Your task to perform on an android device: Open the stopwatch Image 0: 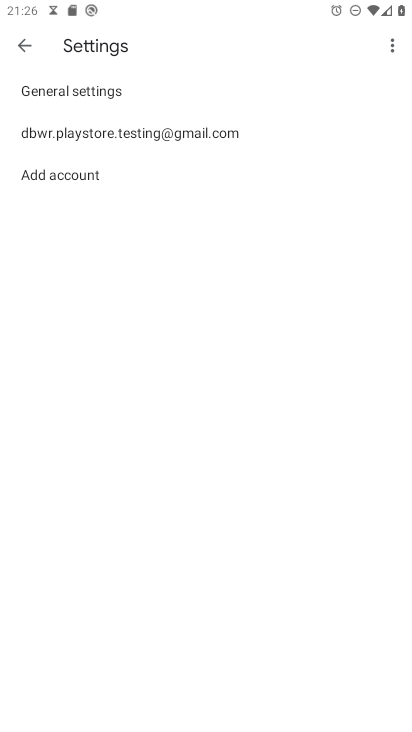
Step 0: press home button
Your task to perform on an android device: Open the stopwatch Image 1: 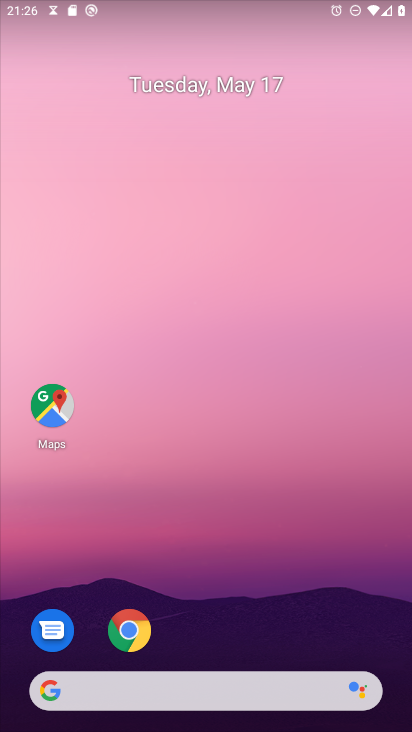
Step 1: drag from (192, 556) to (170, 90)
Your task to perform on an android device: Open the stopwatch Image 2: 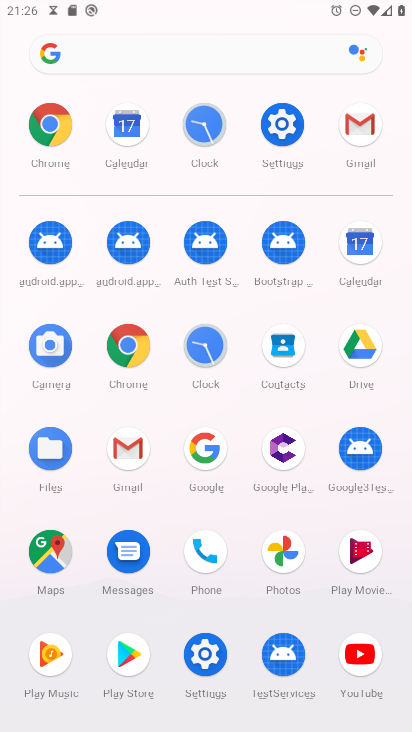
Step 2: click (214, 341)
Your task to perform on an android device: Open the stopwatch Image 3: 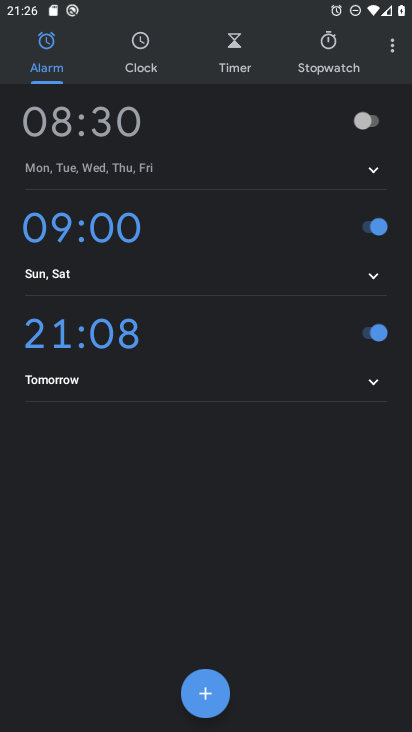
Step 3: click (320, 47)
Your task to perform on an android device: Open the stopwatch Image 4: 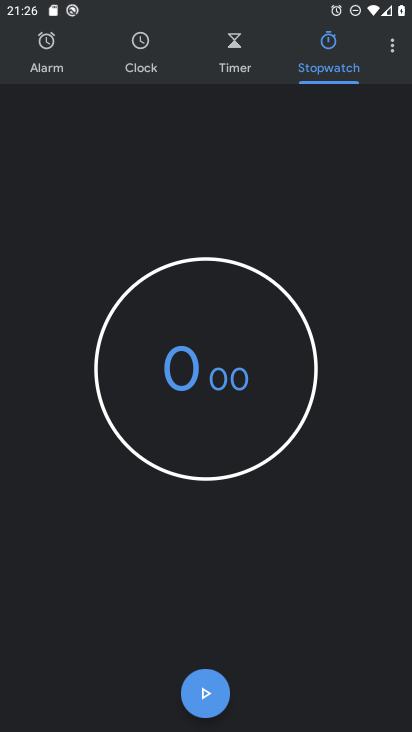
Step 4: task complete